Your task to perform on an android device: turn on airplane mode Image 0: 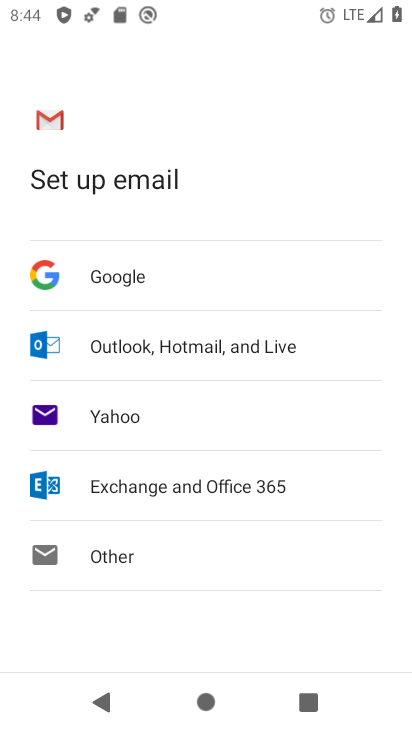
Step 0: press home button
Your task to perform on an android device: turn on airplane mode Image 1: 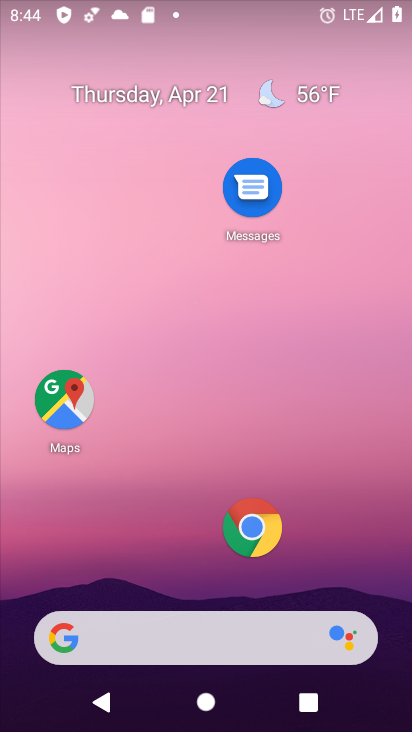
Step 1: drag from (146, 637) to (247, 117)
Your task to perform on an android device: turn on airplane mode Image 2: 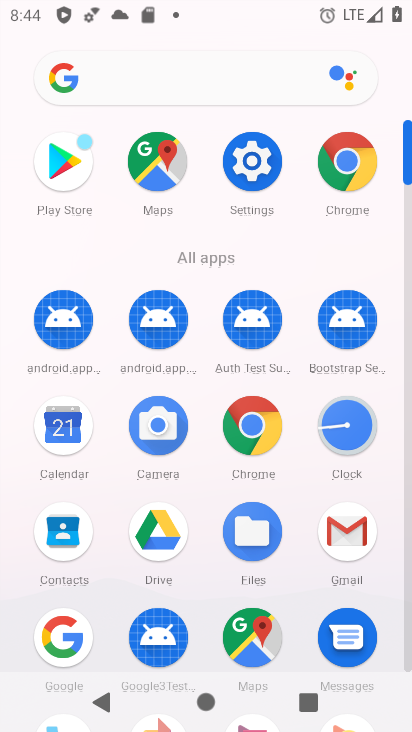
Step 2: click (258, 173)
Your task to perform on an android device: turn on airplane mode Image 3: 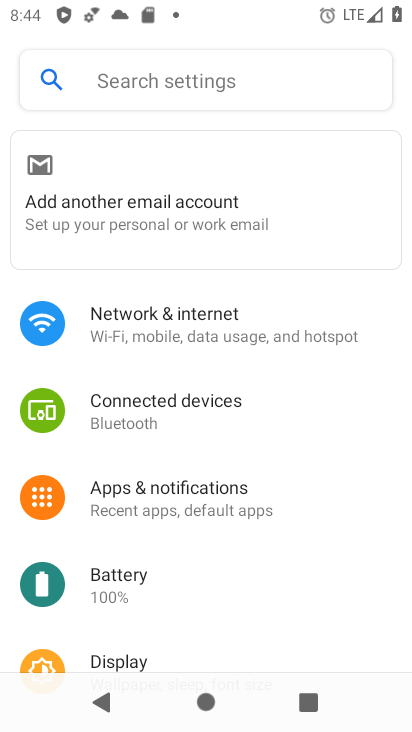
Step 3: click (178, 319)
Your task to perform on an android device: turn on airplane mode Image 4: 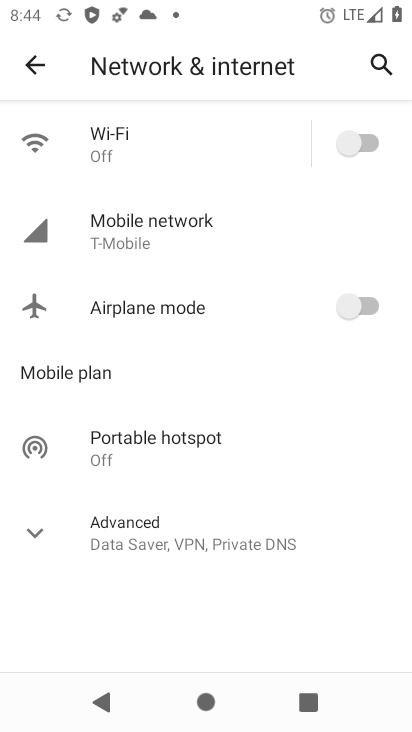
Step 4: click (369, 305)
Your task to perform on an android device: turn on airplane mode Image 5: 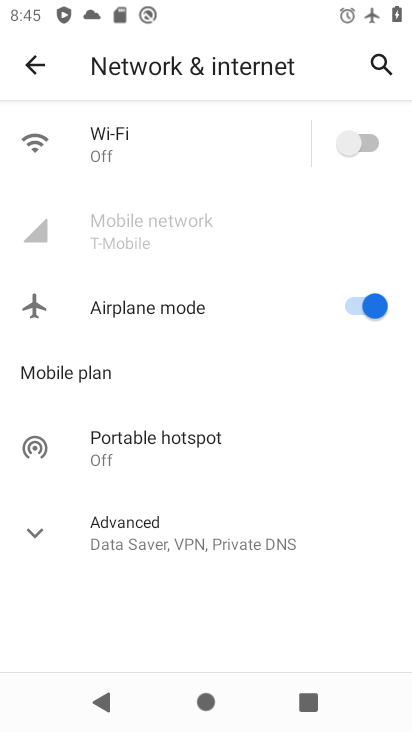
Step 5: task complete